Your task to perform on an android device: Search for "corsair k70" on bestbuy.com, select the first entry, add it to the cart, then select checkout. Image 0: 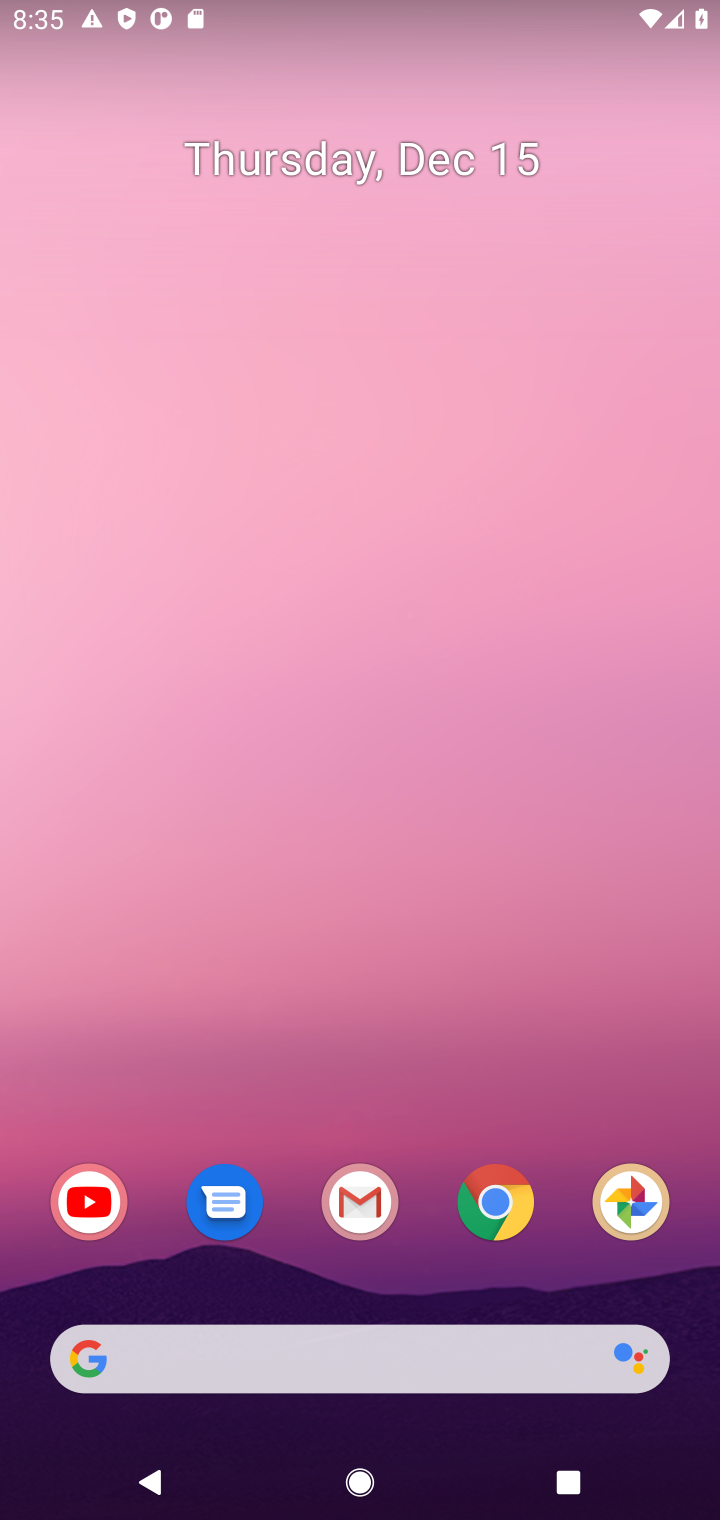
Step 0: click (481, 1208)
Your task to perform on an android device: Search for "corsair k70" on bestbuy.com, select the first entry, add it to the cart, then select checkout. Image 1: 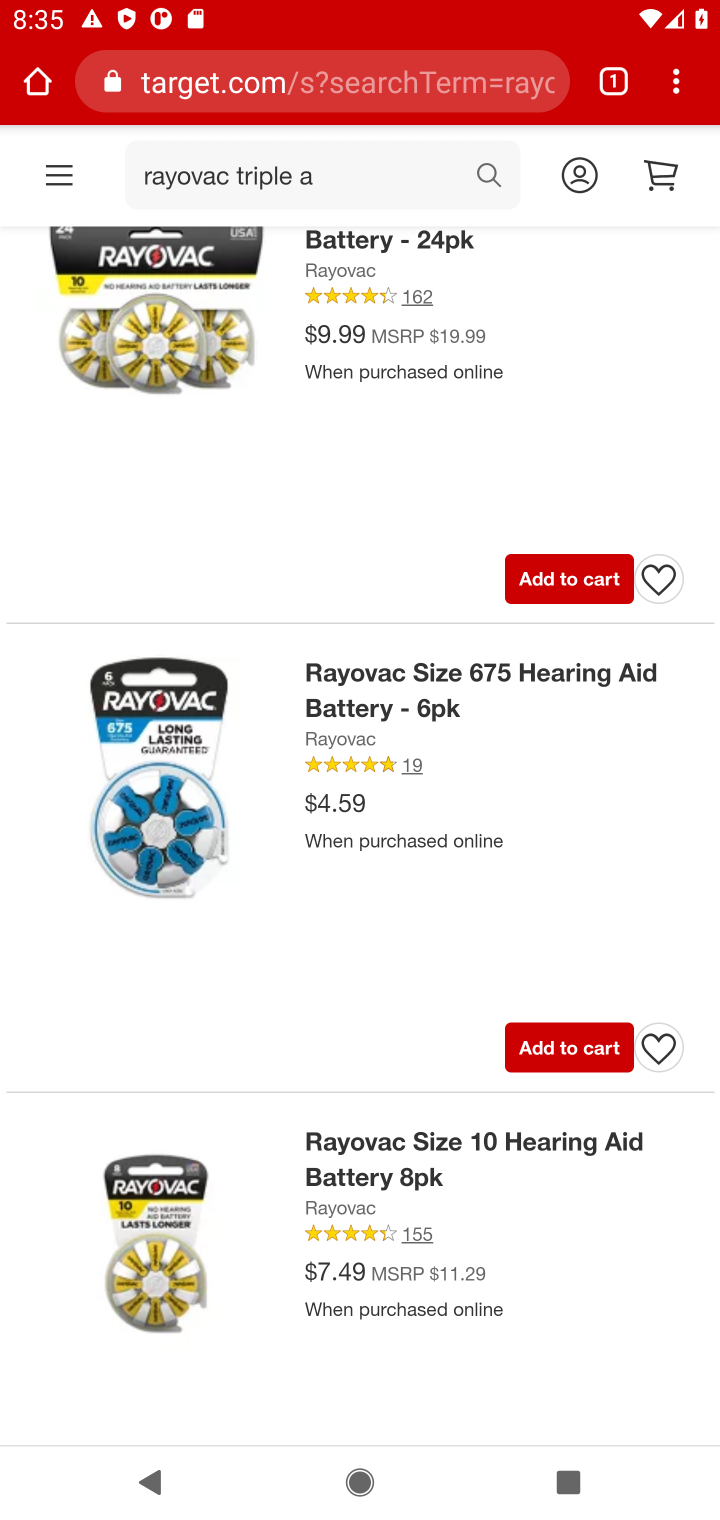
Step 1: click (308, 90)
Your task to perform on an android device: Search for "corsair k70" on bestbuy.com, select the first entry, add it to the cart, then select checkout. Image 2: 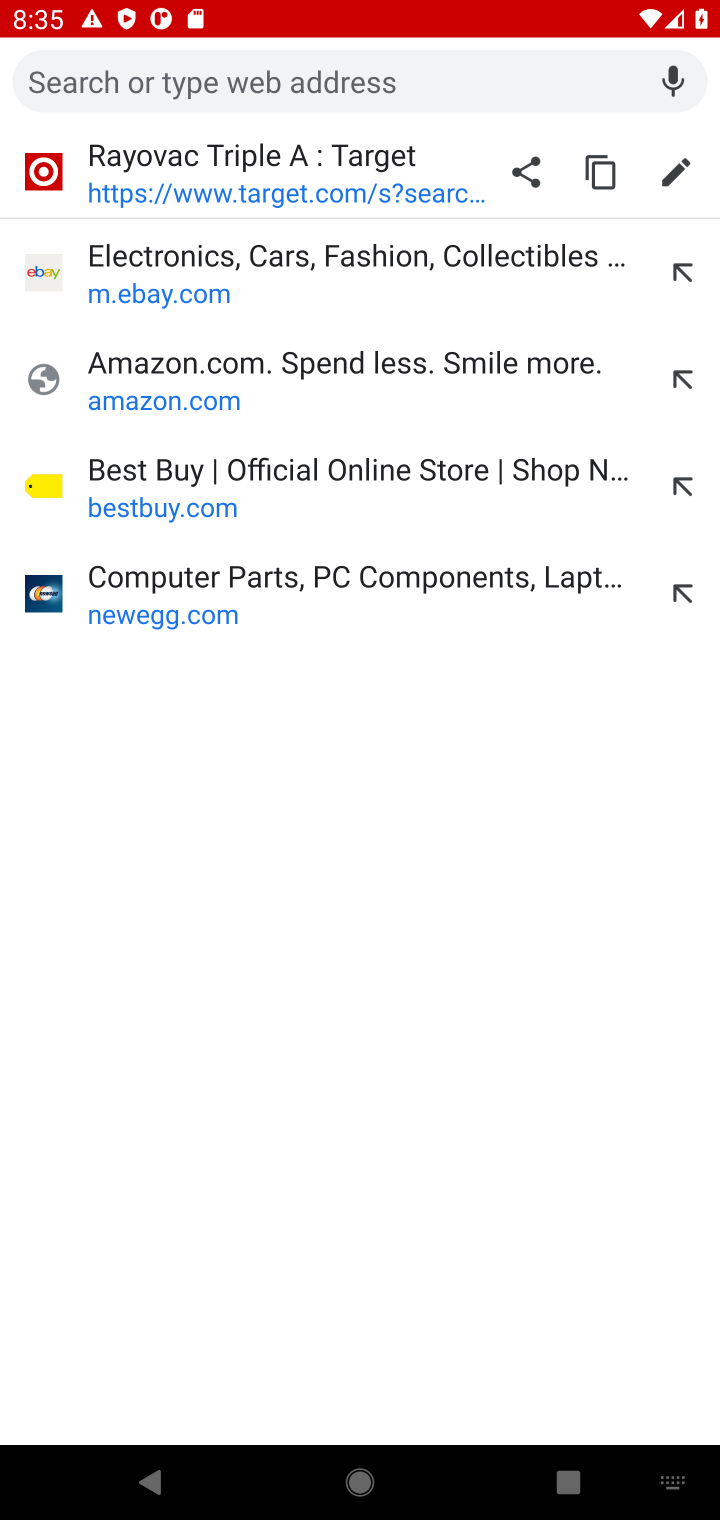
Step 2: click (112, 489)
Your task to perform on an android device: Search for "corsair k70" on bestbuy.com, select the first entry, add it to the cart, then select checkout. Image 3: 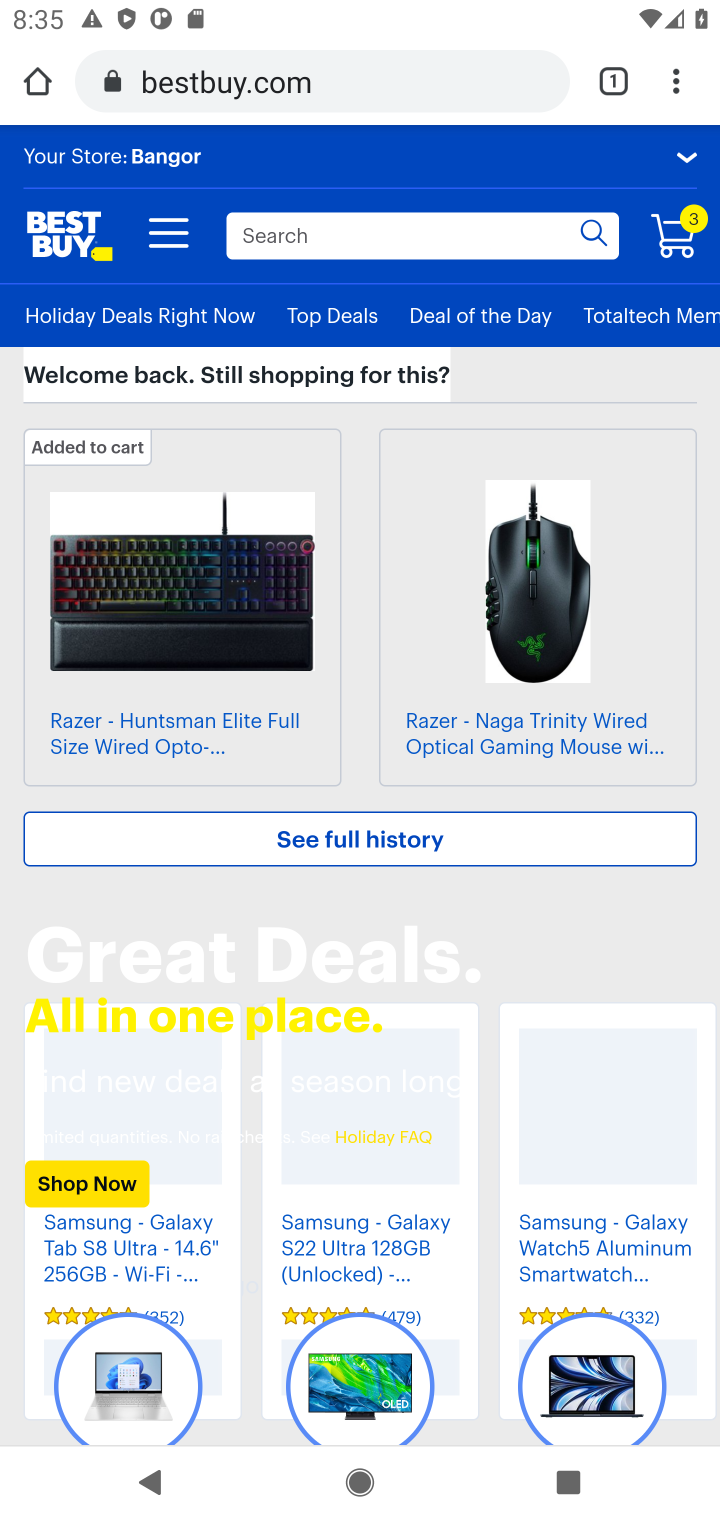
Step 3: click (292, 223)
Your task to perform on an android device: Search for "corsair k70" on bestbuy.com, select the first entry, add it to the cart, then select checkout. Image 4: 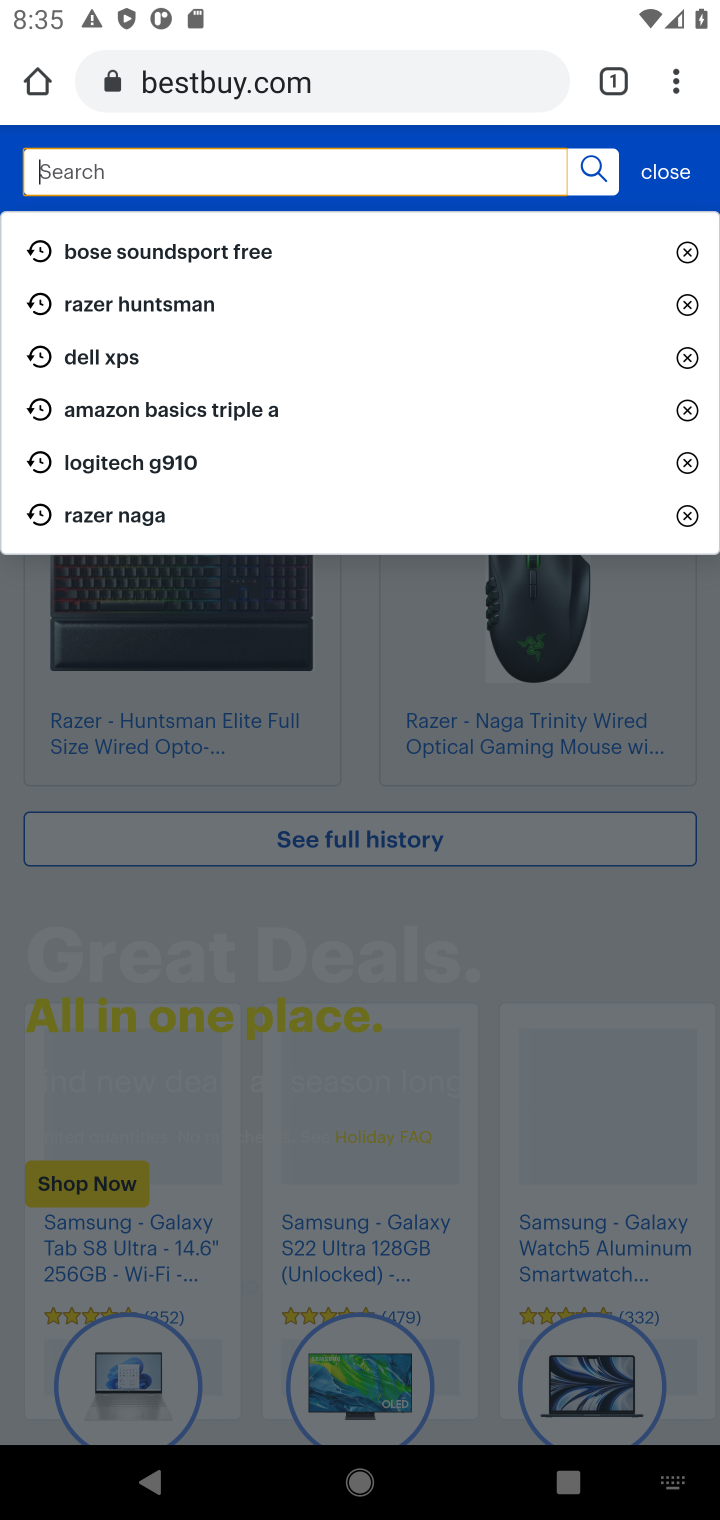
Step 4: type "corsair k70"
Your task to perform on an android device: Search for "corsair k70" on bestbuy.com, select the first entry, add it to the cart, then select checkout. Image 5: 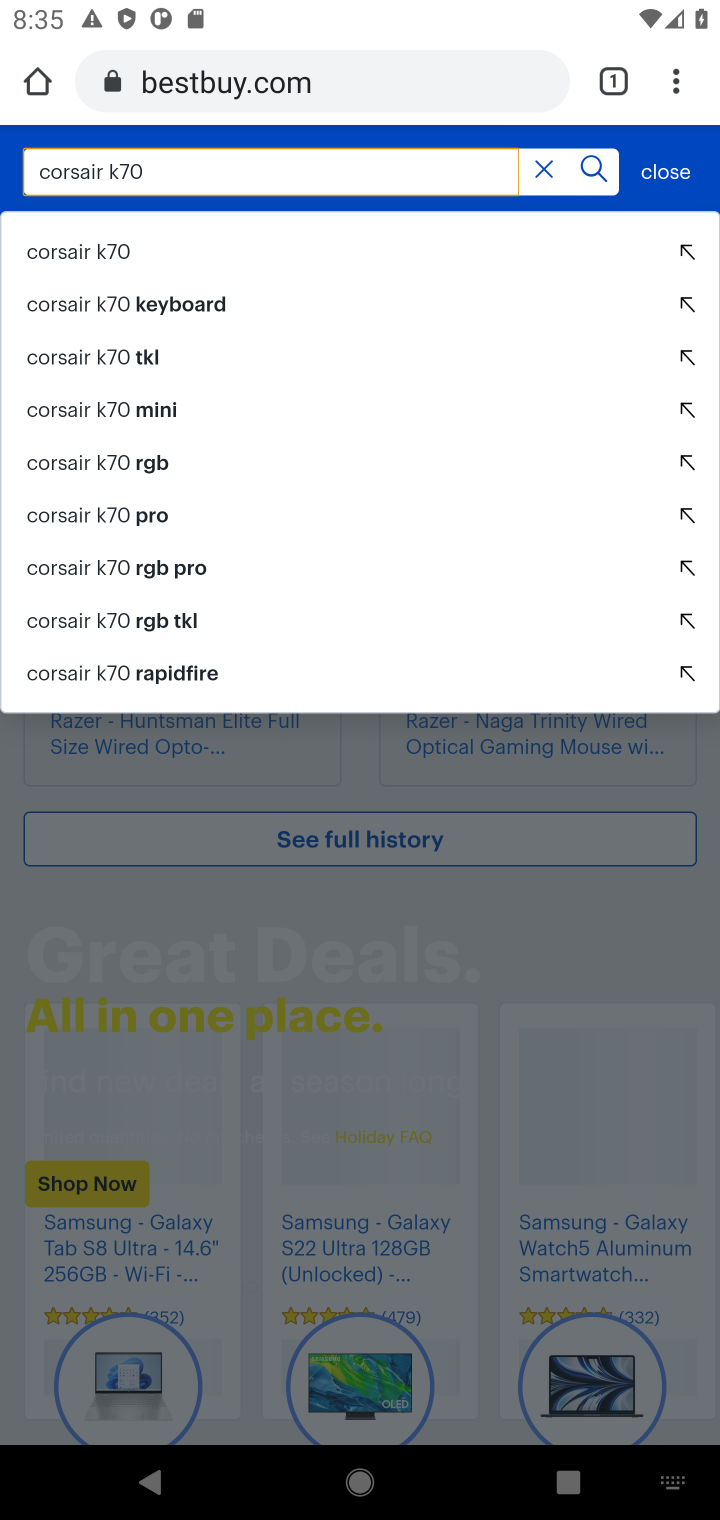
Step 5: click (93, 258)
Your task to perform on an android device: Search for "corsair k70" on bestbuy.com, select the first entry, add it to the cart, then select checkout. Image 6: 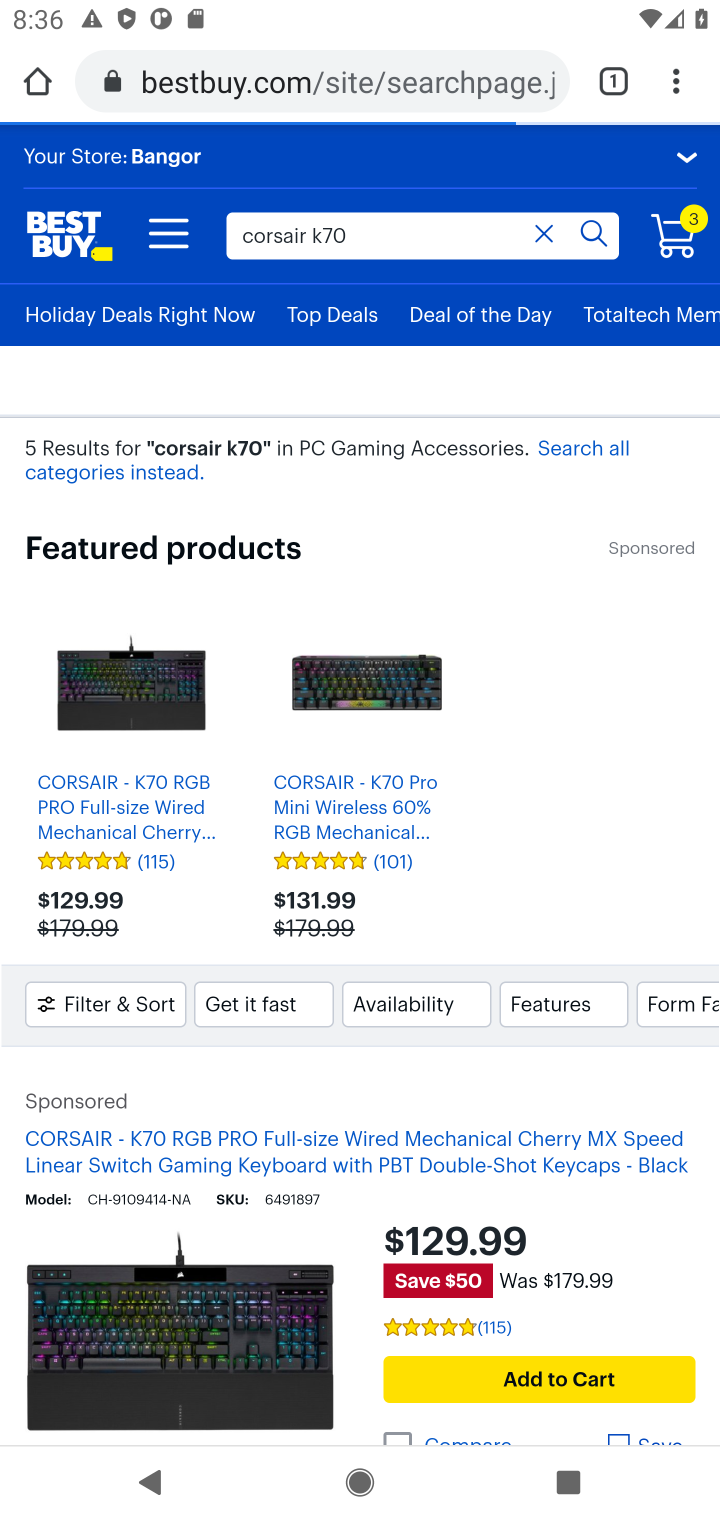
Step 6: drag from (274, 1084) to (299, 653)
Your task to perform on an android device: Search for "corsair k70" on bestbuy.com, select the first entry, add it to the cart, then select checkout. Image 7: 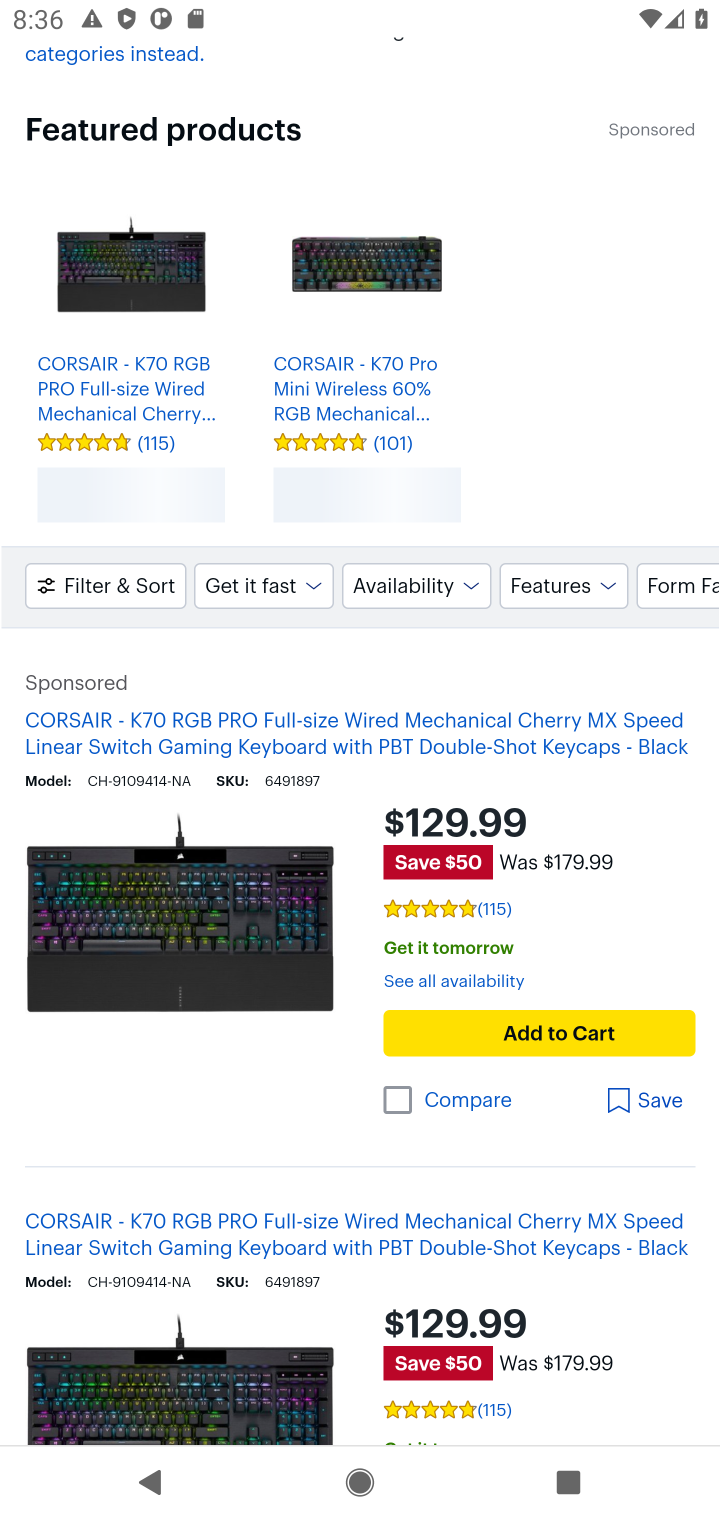
Step 7: click (507, 1032)
Your task to perform on an android device: Search for "corsair k70" on bestbuy.com, select the first entry, add it to the cart, then select checkout. Image 8: 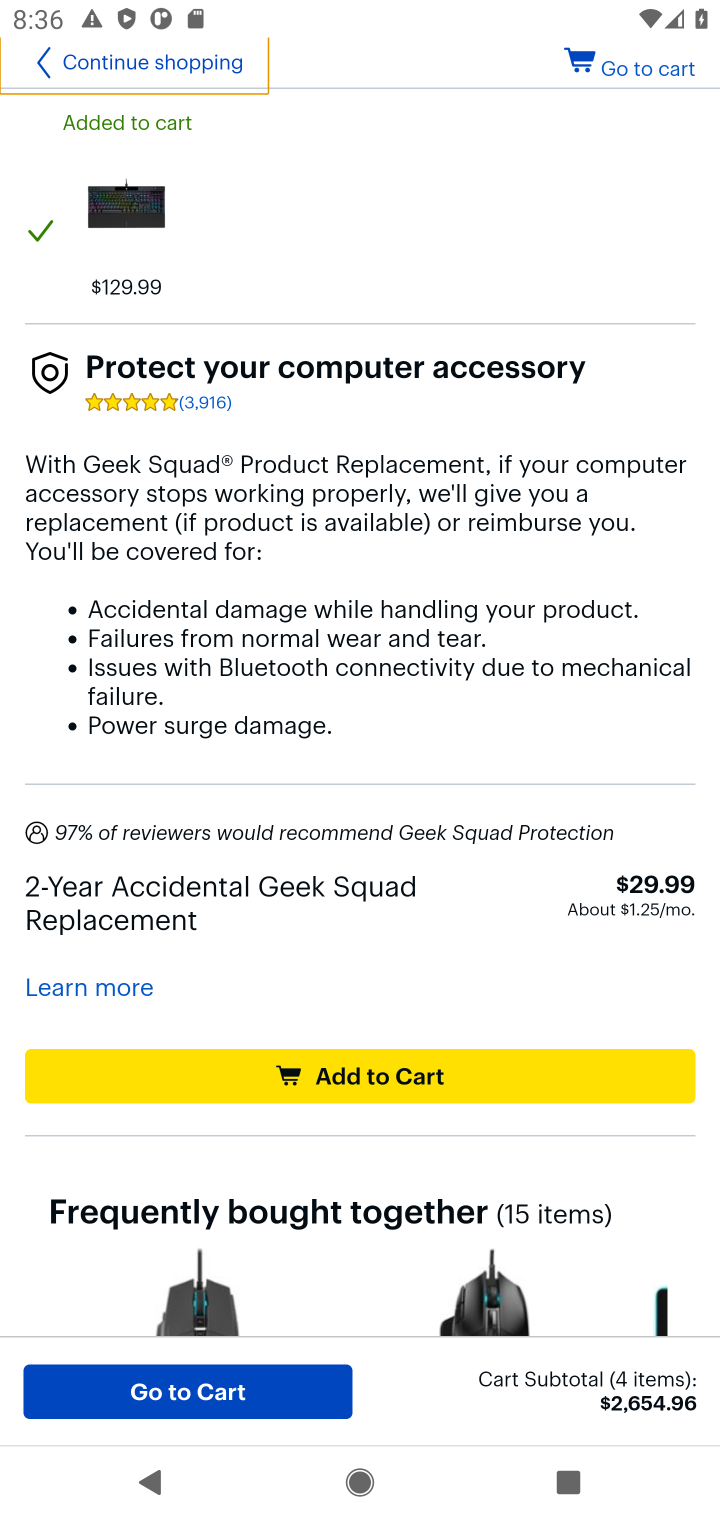
Step 8: click (650, 72)
Your task to perform on an android device: Search for "corsair k70" on bestbuy.com, select the first entry, add it to the cart, then select checkout. Image 9: 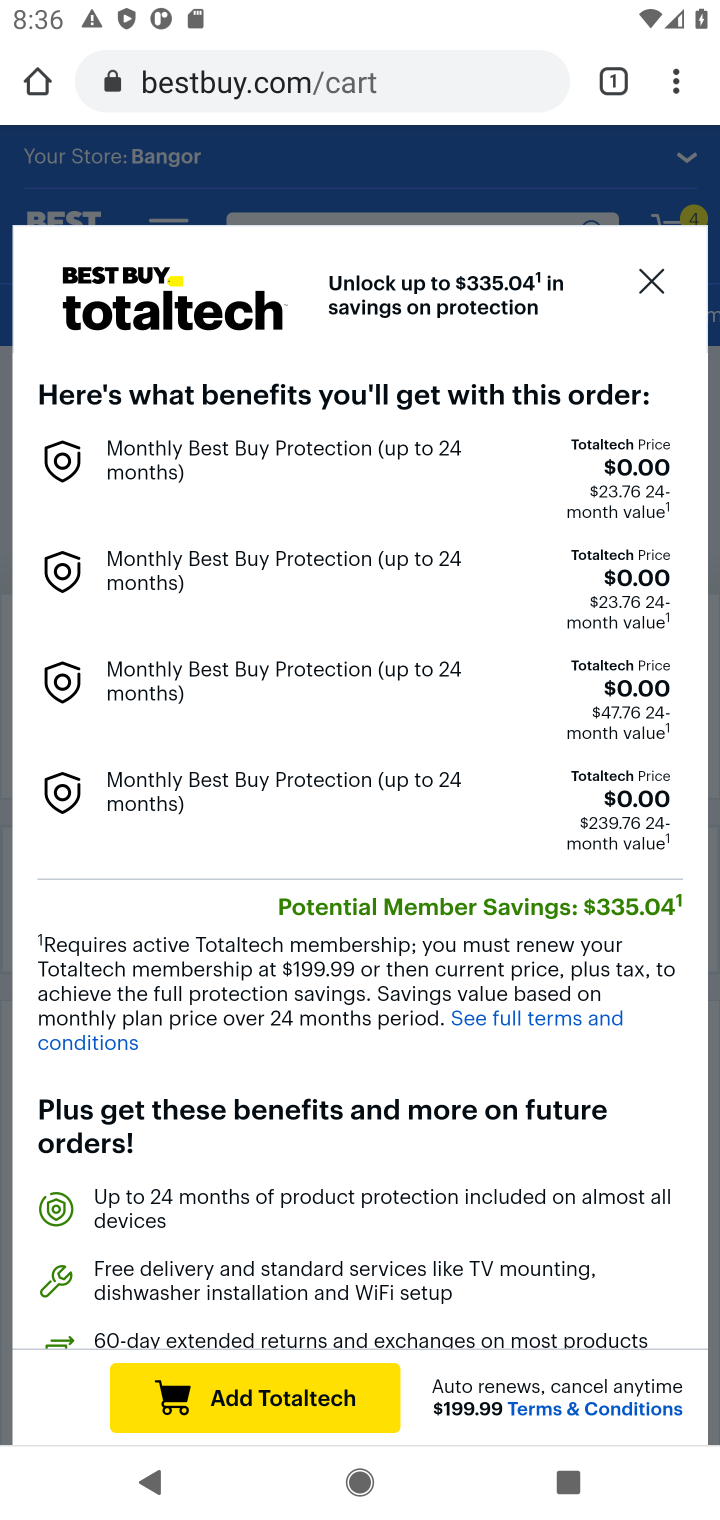
Step 9: click (656, 298)
Your task to perform on an android device: Search for "corsair k70" on bestbuy.com, select the first entry, add it to the cart, then select checkout. Image 10: 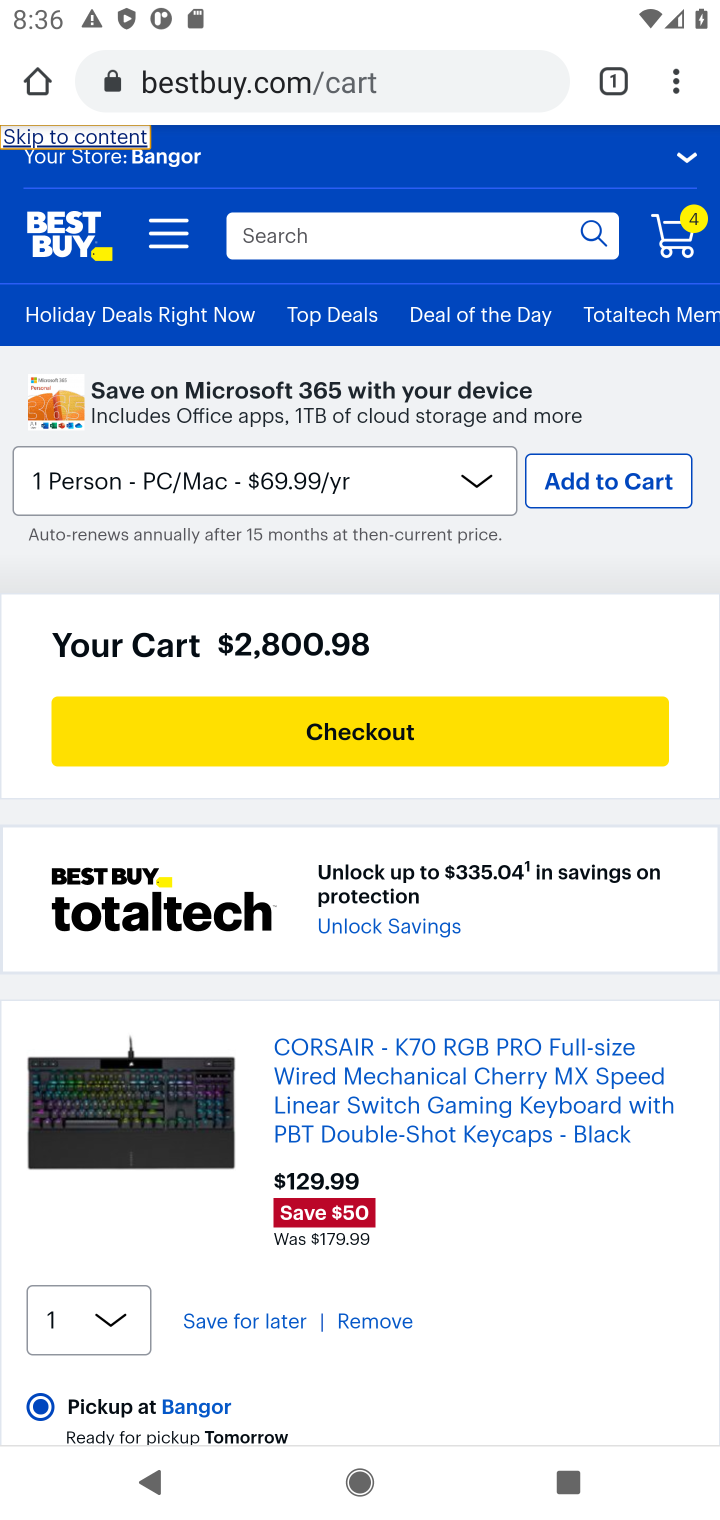
Step 10: click (354, 716)
Your task to perform on an android device: Search for "corsair k70" on bestbuy.com, select the first entry, add it to the cart, then select checkout. Image 11: 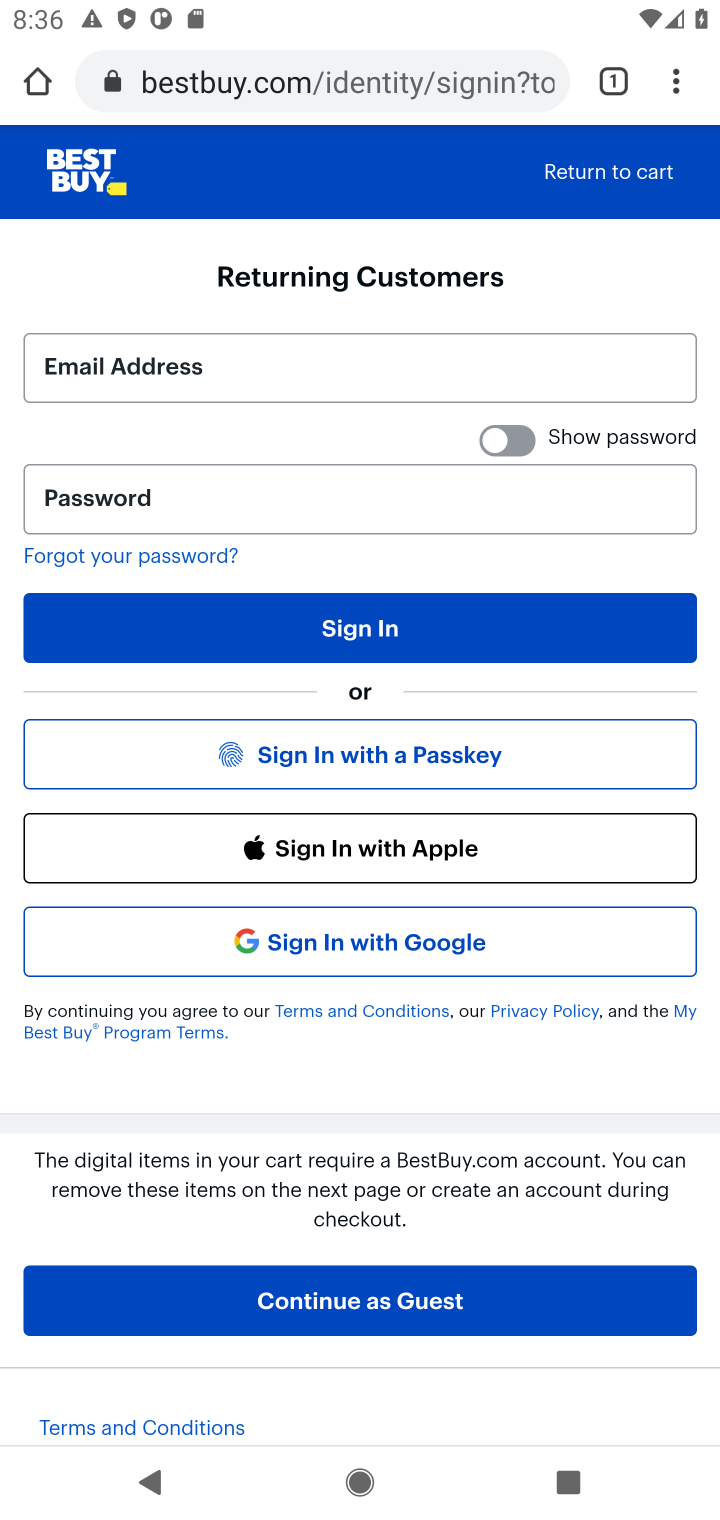
Step 11: task complete